Your task to perform on an android device: Open Wikipedia Image 0: 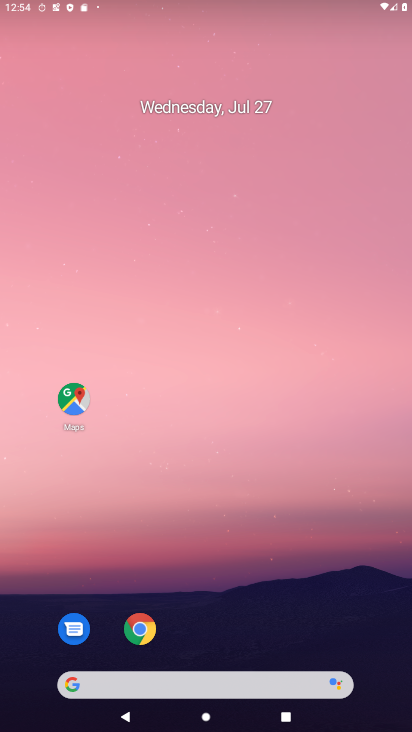
Step 0: drag from (372, 651) to (117, 44)
Your task to perform on an android device: Open Wikipedia Image 1: 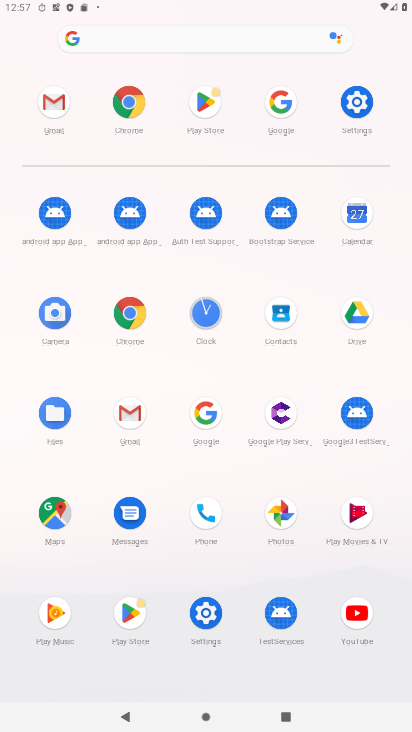
Step 1: click (208, 422)
Your task to perform on an android device: Open Wikipedia Image 2: 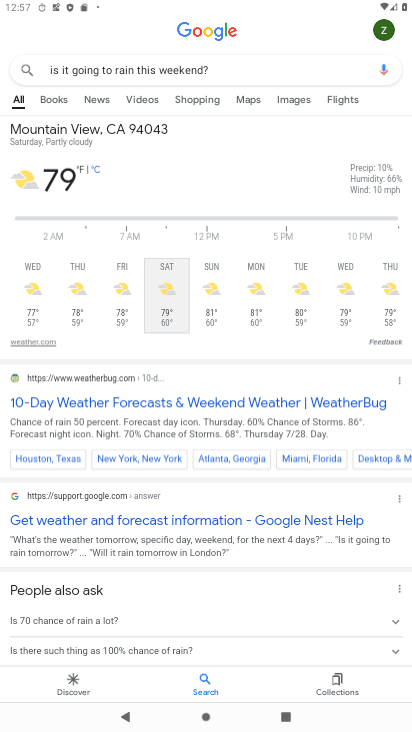
Step 2: press back button
Your task to perform on an android device: Open Wikipedia Image 3: 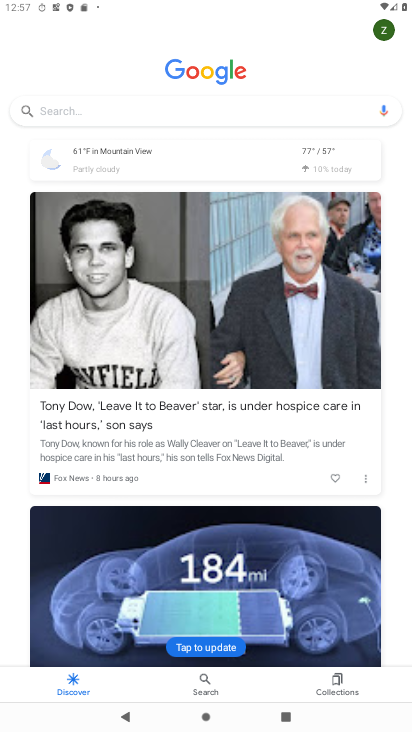
Step 3: click (106, 111)
Your task to perform on an android device: Open Wikipedia Image 4: 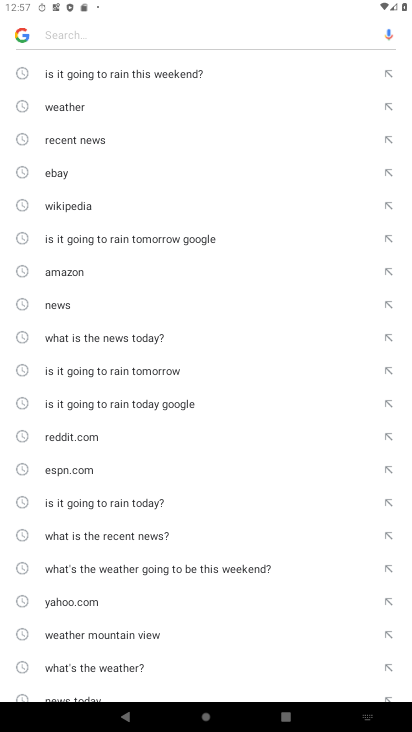
Step 4: click (67, 204)
Your task to perform on an android device: Open Wikipedia Image 5: 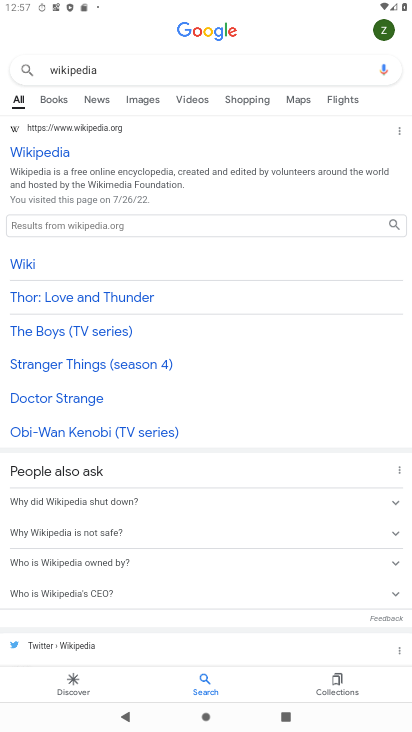
Step 5: task complete